Your task to perform on an android device: Add logitech g pro to the cart on costco.com, then select checkout. Image 0: 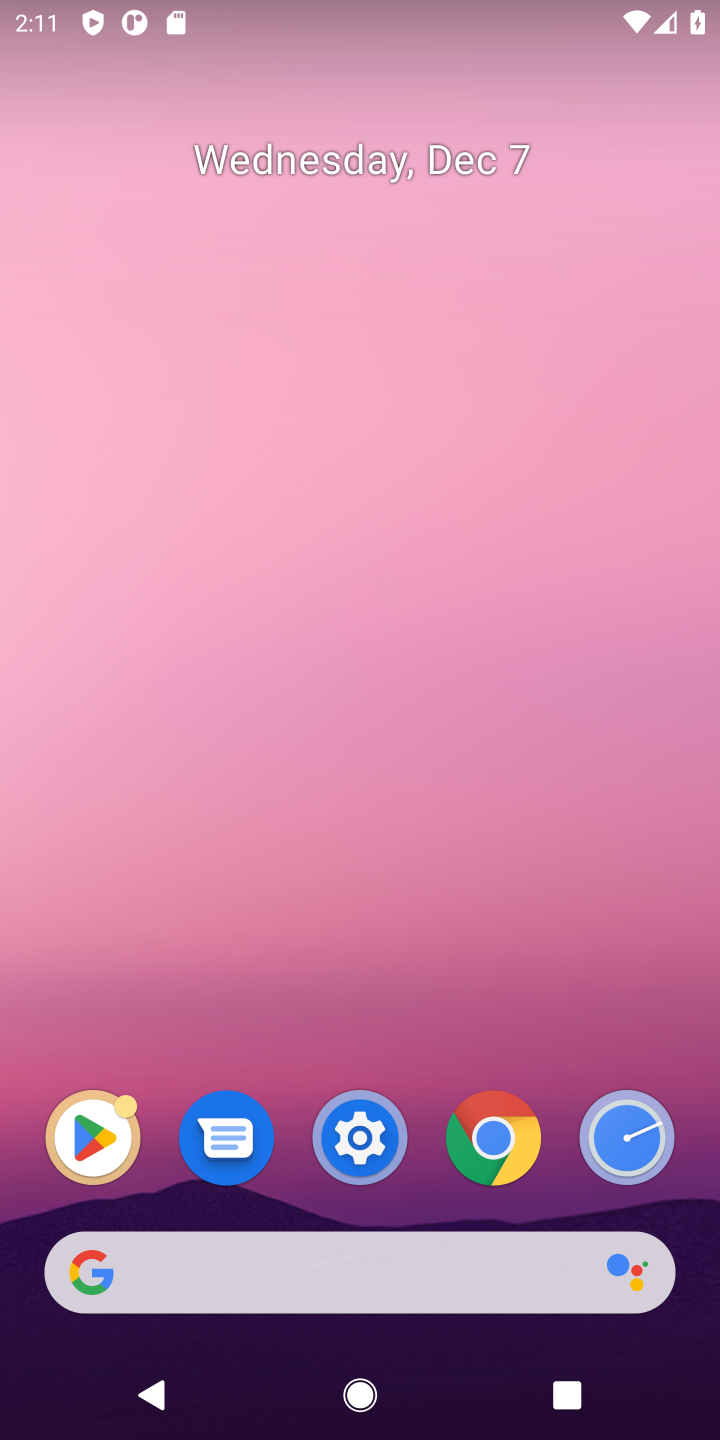
Step 0: click (319, 1263)
Your task to perform on an android device: Add logitech g pro to the cart on costco.com, then select checkout. Image 1: 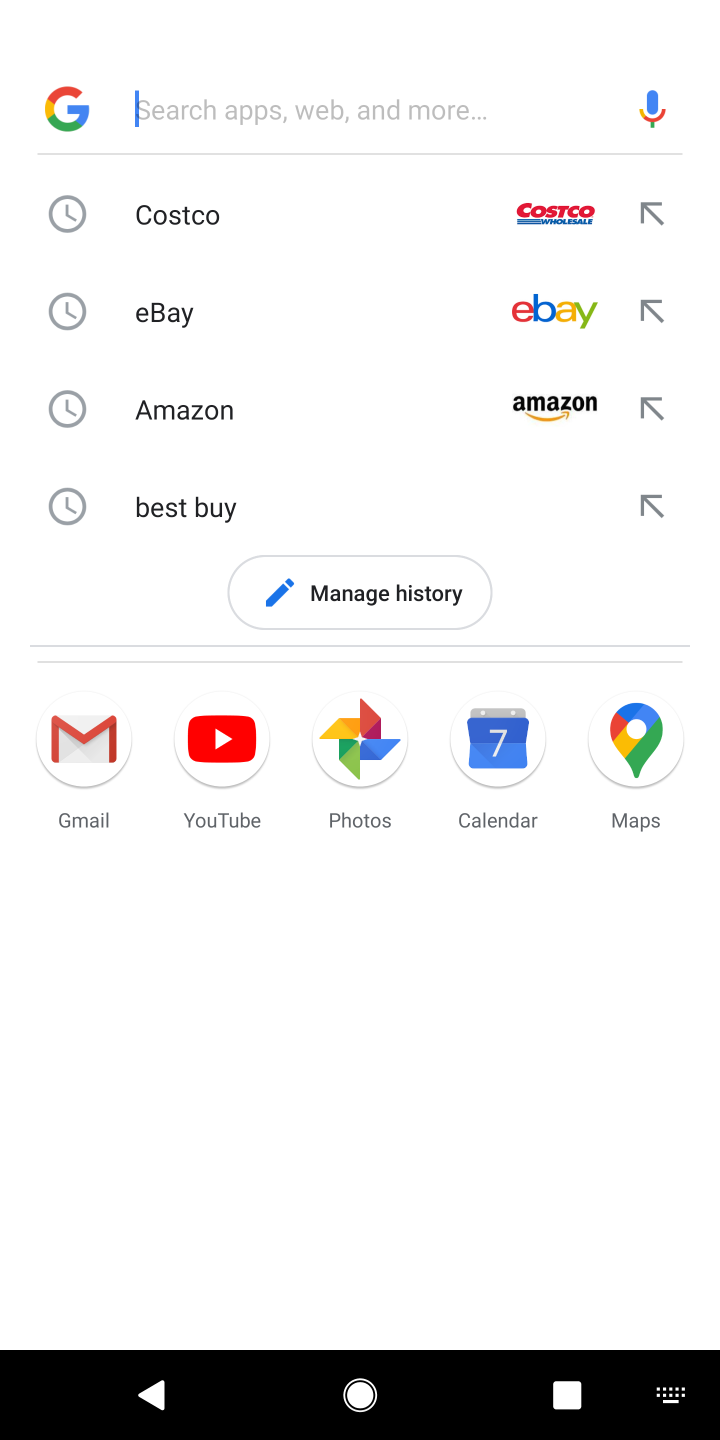
Step 1: type "costco"
Your task to perform on an android device: Add logitech g pro to the cart on costco.com, then select checkout. Image 2: 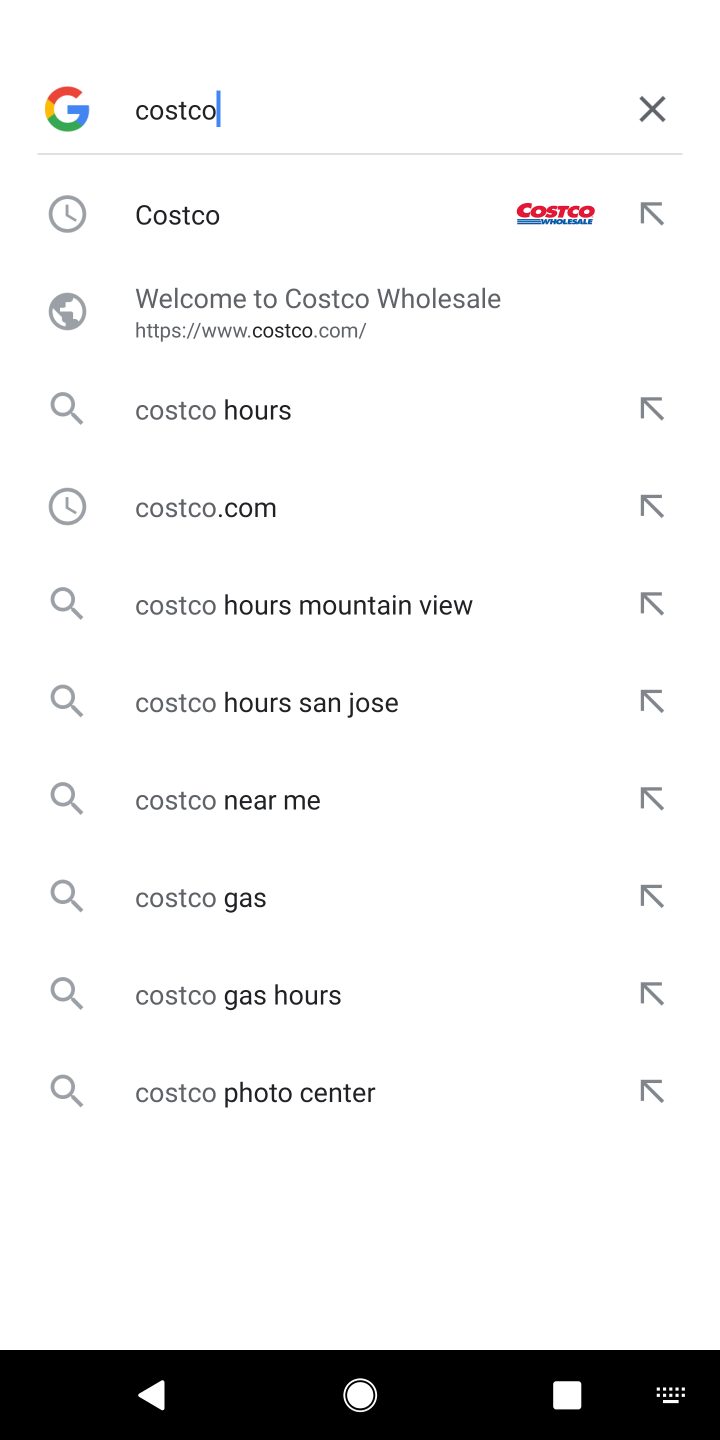
Step 2: click (284, 243)
Your task to perform on an android device: Add logitech g pro to the cart on costco.com, then select checkout. Image 3: 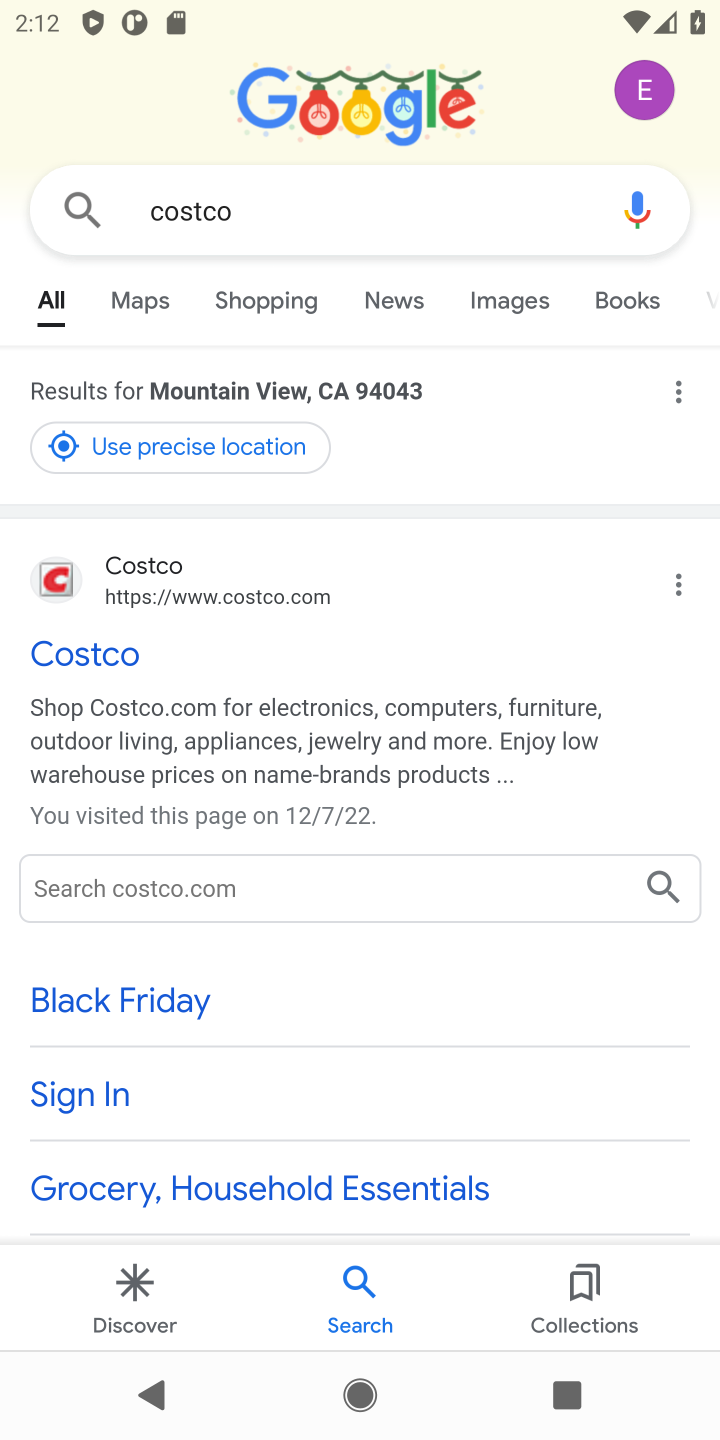
Step 3: click (36, 665)
Your task to perform on an android device: Add logitech g pro to the cart on costco.com, then select checkout. Image 4: 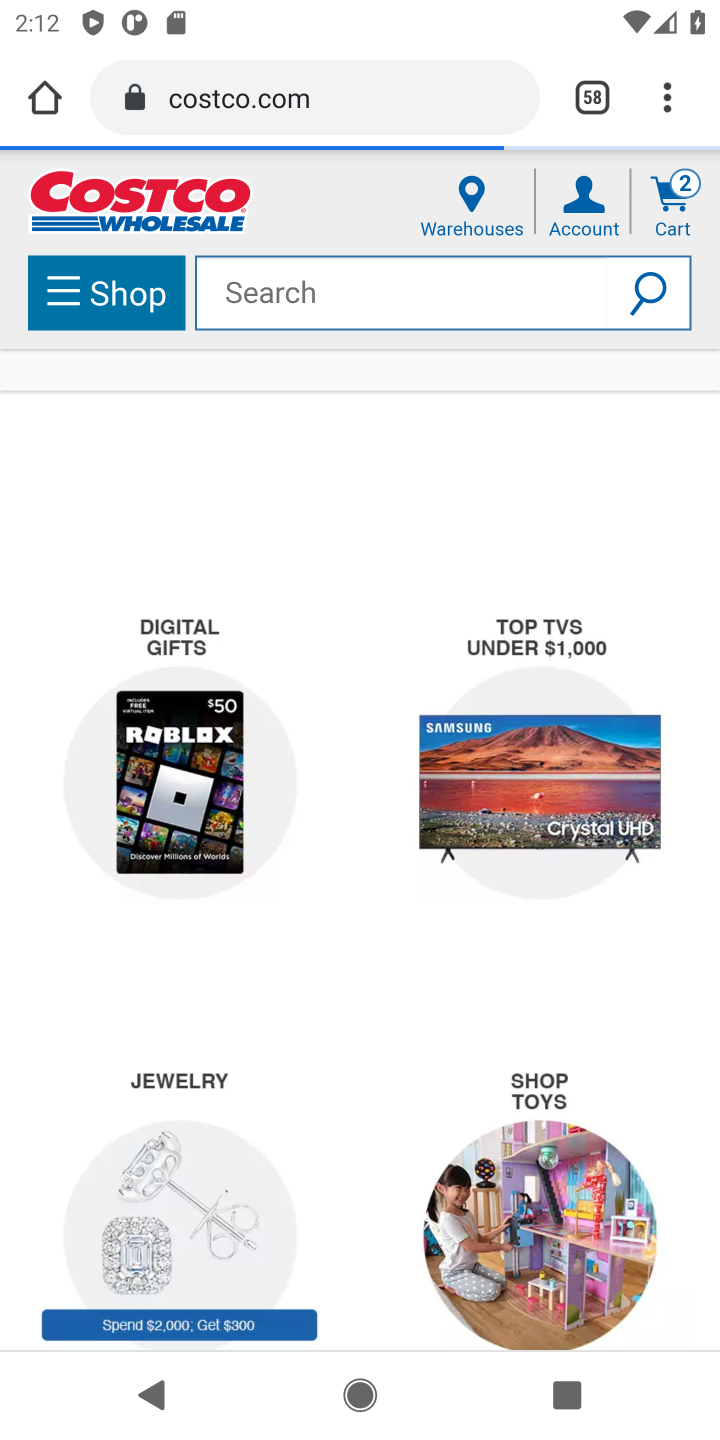
Step 4: click (410, 282)
Your task to perform on an android device: Add logitech g pro to the cart on costco.com, then select checkout. Image 5: 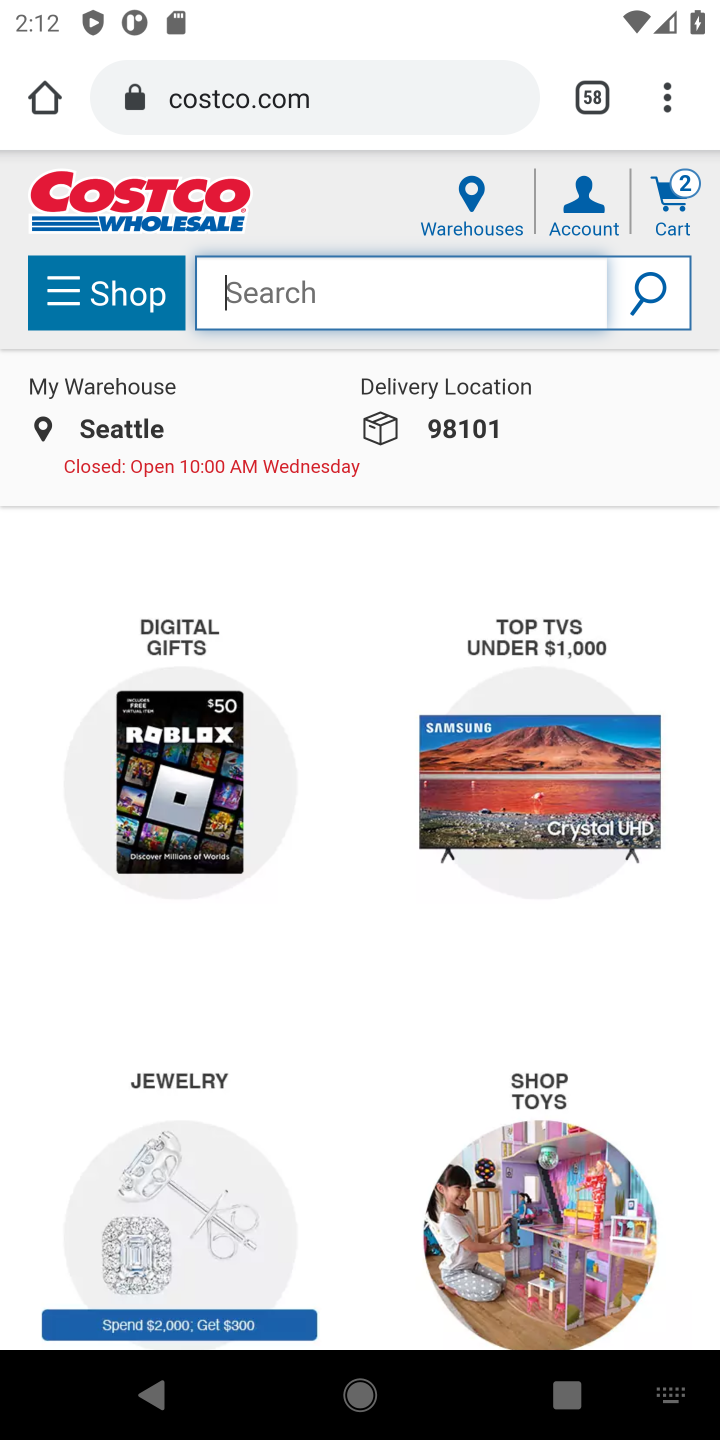
Step 5: type "logitech g pro"
Your task to perform on an android device: Add logitech g pro to the cart on costco.com, then select checkout. Image 6: 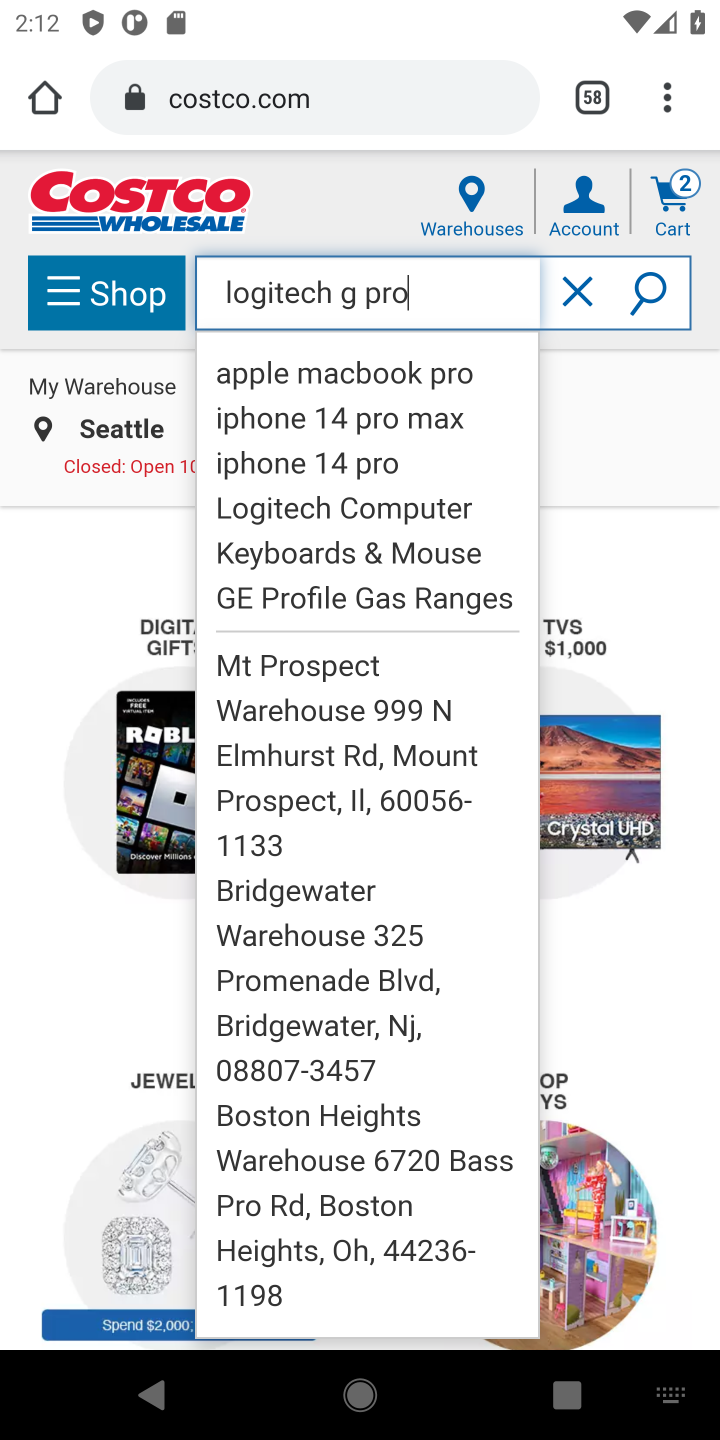
Step 6: click (639, 305)
Your task to perform on an android device: Add logitech g pro to the cart on costco.com, then select checkout. Image 7: 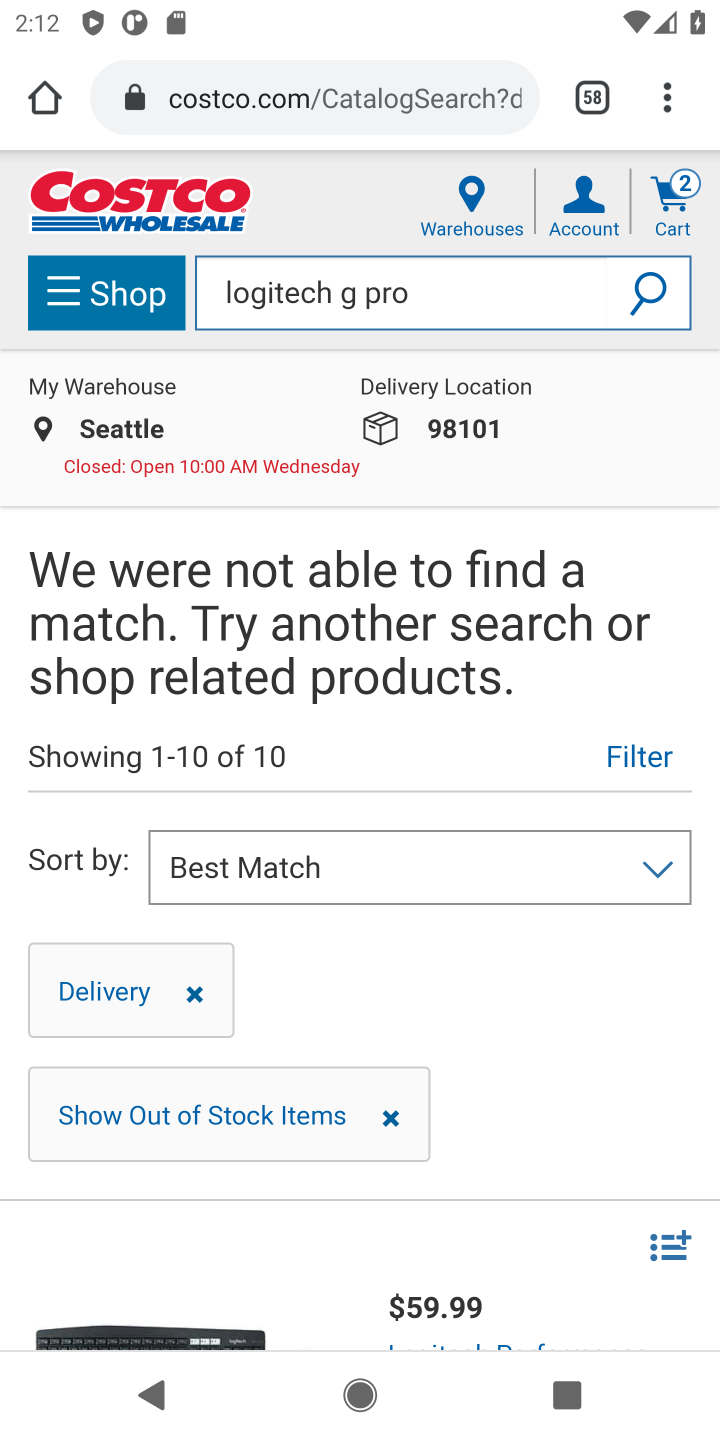
Step 7: task complete